Your task to perform on an android device: Open Google Chrome and click the shortcut for Amazon.com Image 0: 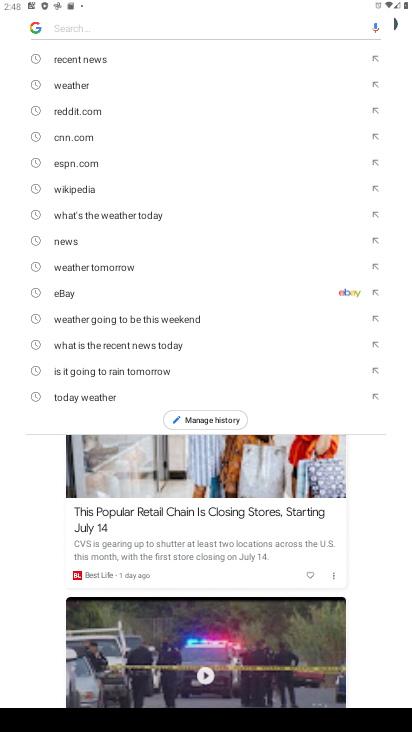
Step 0: press home button
Your task to perform on an android device: Open Google Chrome and click the shortcut for Amazon.com Image 1: 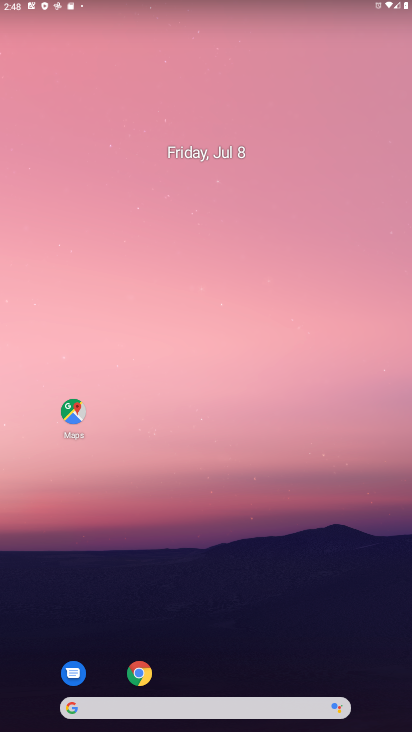
Step 1: click (145, 665)
Your task to perform on an android device: Open Google Chrome and click the shortcut for Amazon.com Image 2: 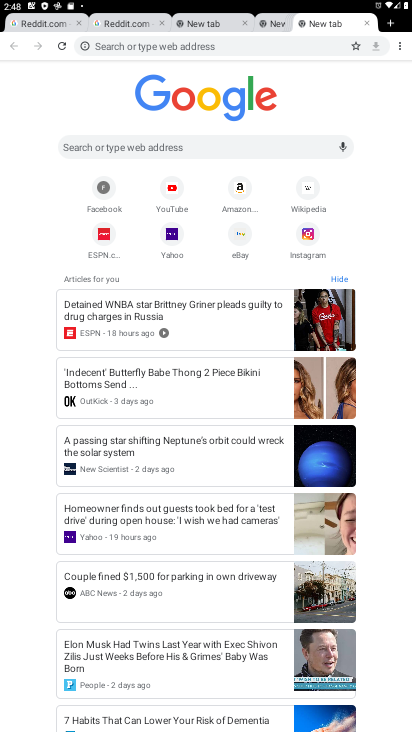
Step 2: click (230, 135)
Your task to perform on an android device: Open Google Chrome and click the shortcut for Amazon.com Image 3: 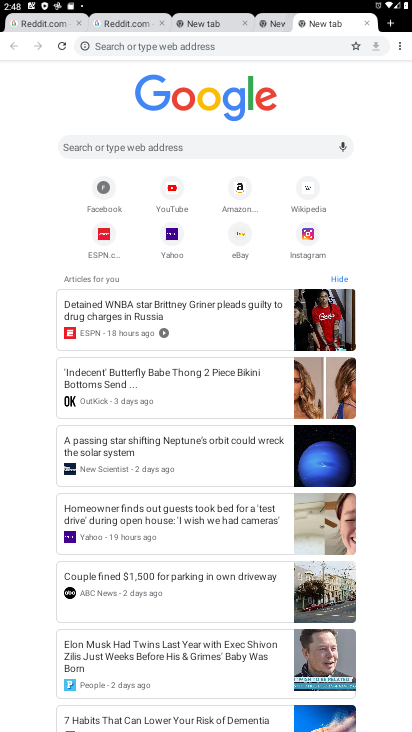
Step 3: click (240, 195)
Your task to perform on an android device: Open Google Chrome and click the shortcut for Amazon.com Image 4: 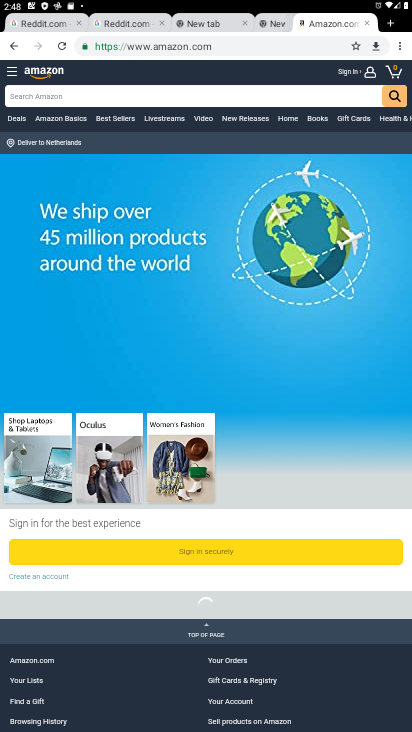
Step 4: task complete